Your task to perform on an android device: turn on the 24-hour format for clock Image 0: 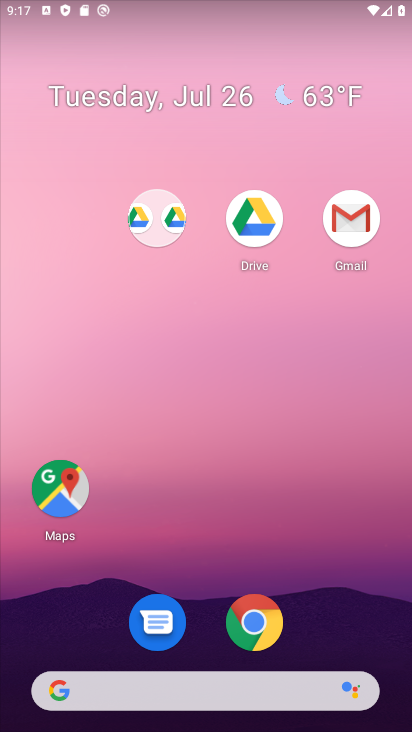
Step 0: drag from (390, 642) to (317, 279)
Your task to perform on an android device: turn on the 24-hour format for clock Image 1: 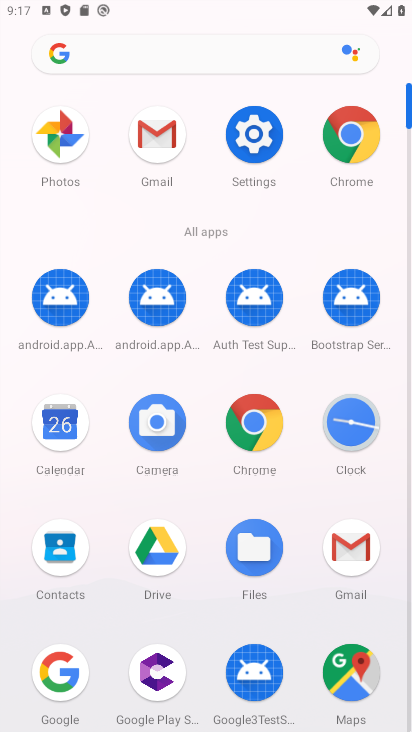
Step 1: click (330, 414)
Your task to perform on an android device: turn on the 24-hour format for clock Image 2: 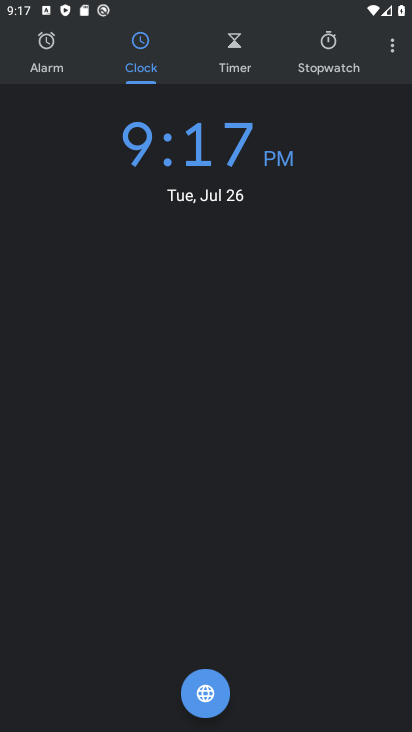
Step 2: task complete